Your task to perform on an android device: Go to wifi settings Image 0: 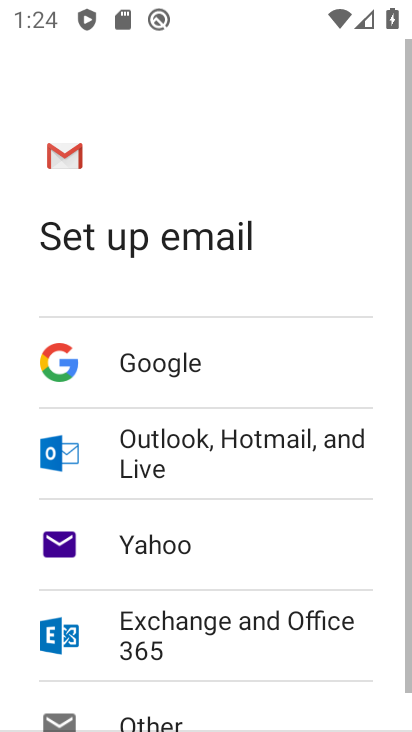
Step 0: press back button
Your task to perform on an android device: Go to wifi settings Image 1: 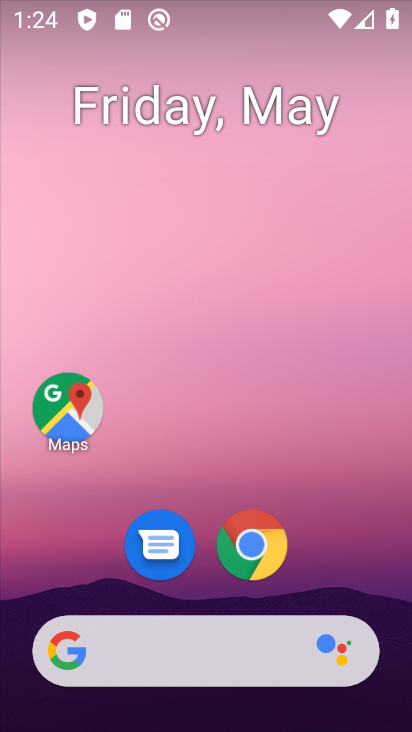
Step 1: drag from (261, 685) to (195, 138)
Your task to perform on an android device: Go to wifi settings Image 2: 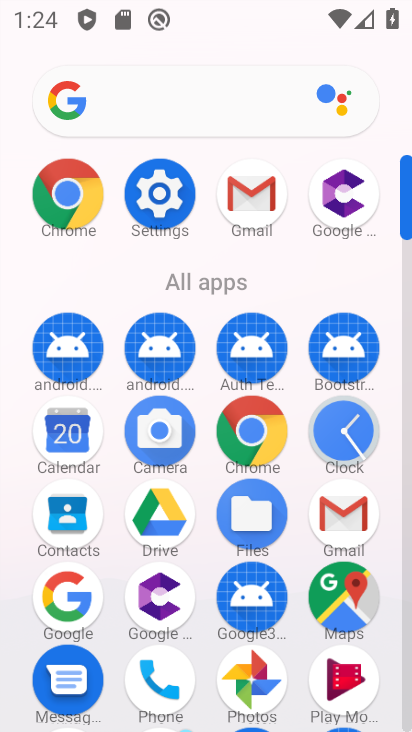
Step 2: click (175, 195)
Your task to perform on an android device: Go to wifi settings Image 3: 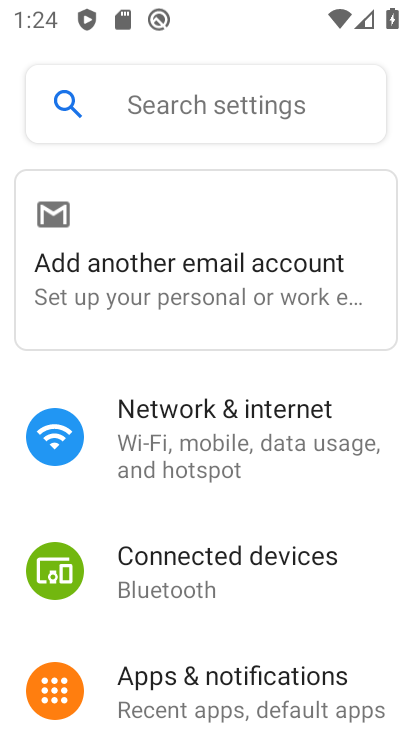
Step 3: click (207, 465)
Your task to perform on an android device: Go to wifi settings Image 4: 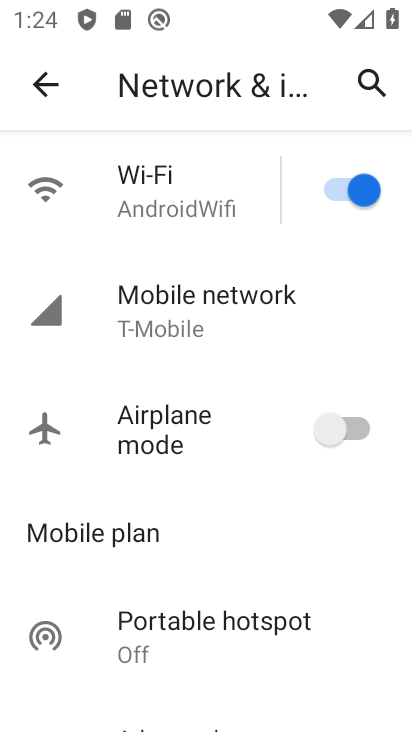
Step 4: task complete